Your task to perform on an android device: Search for a home improvement project you can do. Image 0: 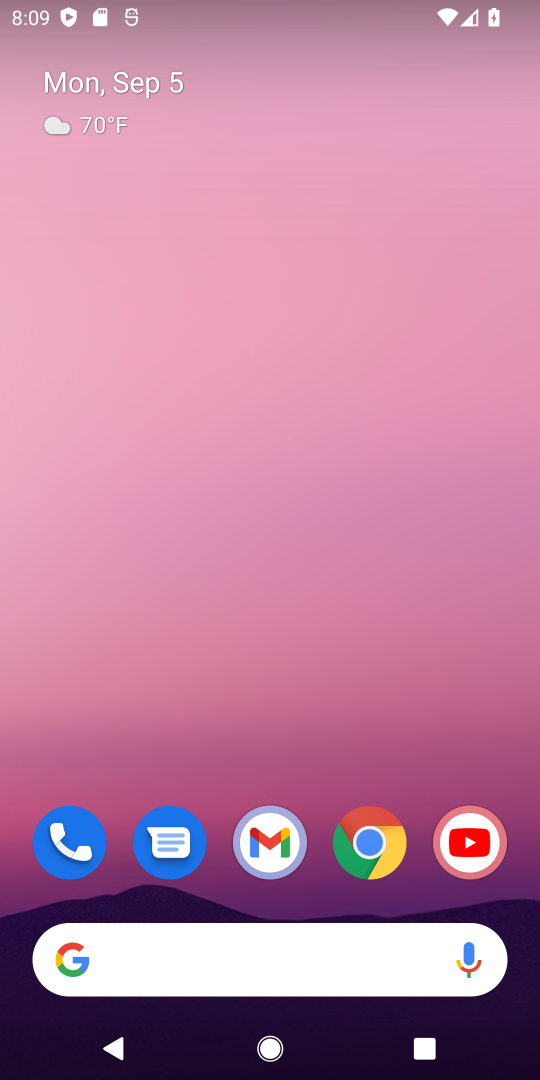
Step 0: click (369, 839)
Your task to perform on an android device: Search for a home improvement project you can do. Image 1: 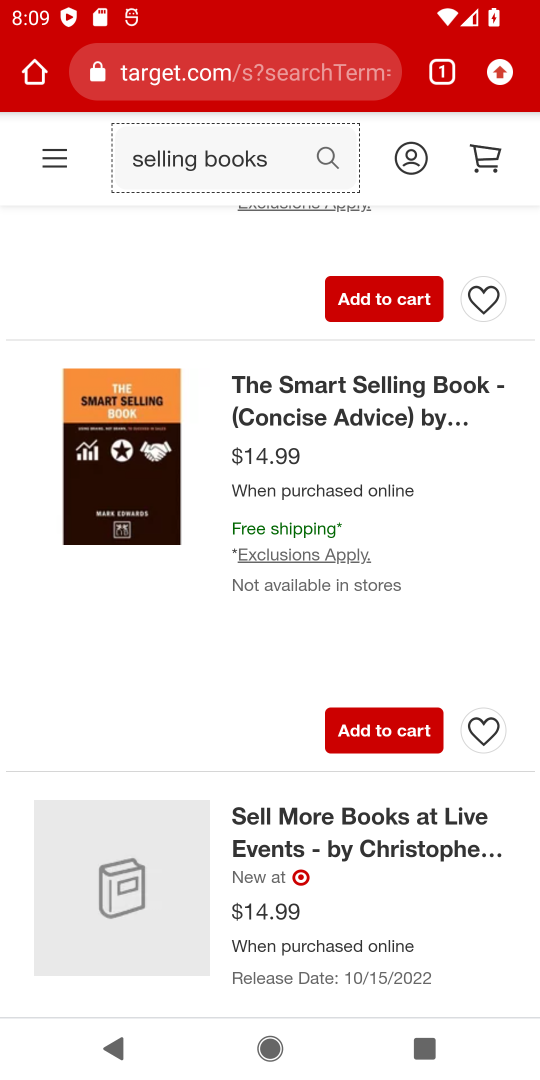
Step 1: click (362, 80)
Your task to perform on an android device: Search for a home improvement project you can do. Image 2: 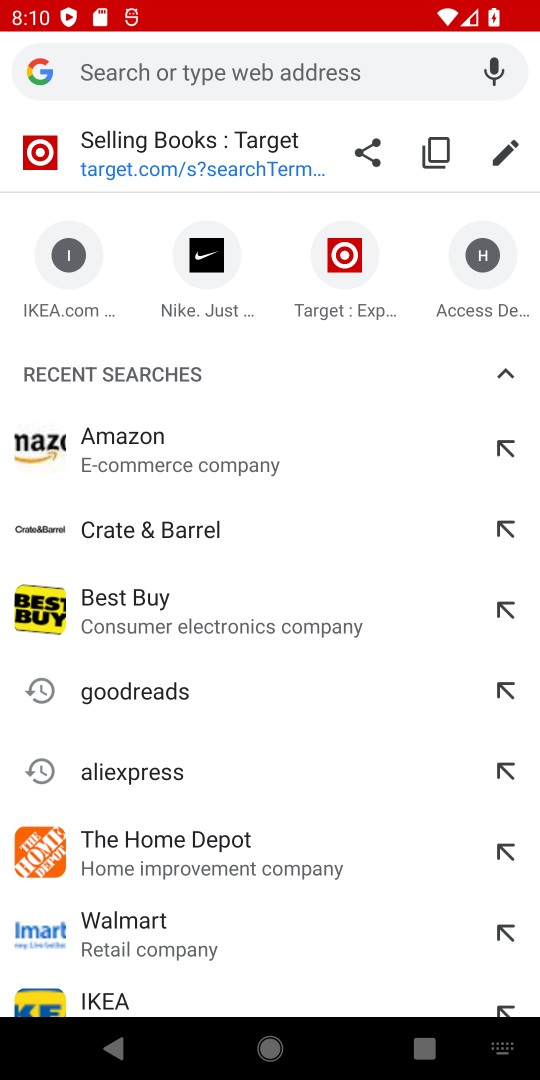
Step 2: type "home improvement project you can do"
Your task to perform on an android device: Search for a home improvement project you can do. Image 3: 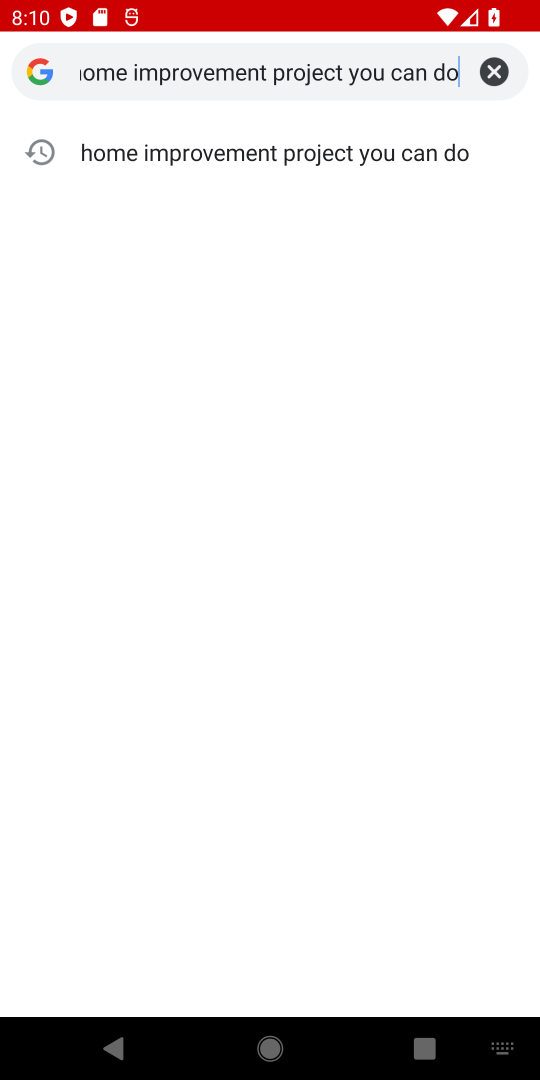
Step 3: click (401, 150)
Your task to perform on an android device: Search for a home improvement project you can do. Image 4: 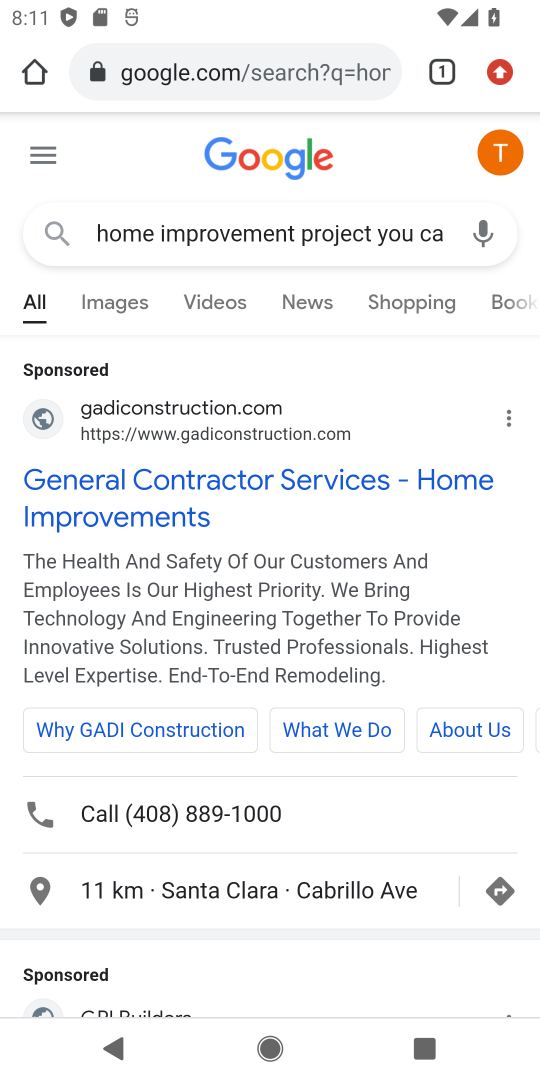
Step 4: drag from (381, 528) to (459, 350)
Your task to perform on an android device: Search for a home improvement project you can do. Image 5: 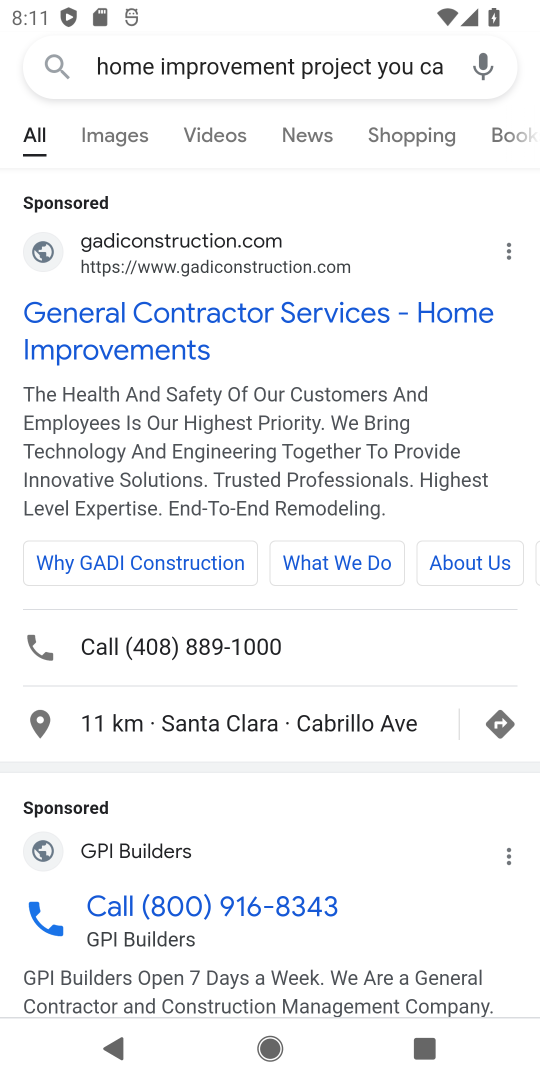
Step 5: drag from (344, 922) to (477, 557)
Your task to perform on an android device: Search for a home improvement project you can do. Image 6: 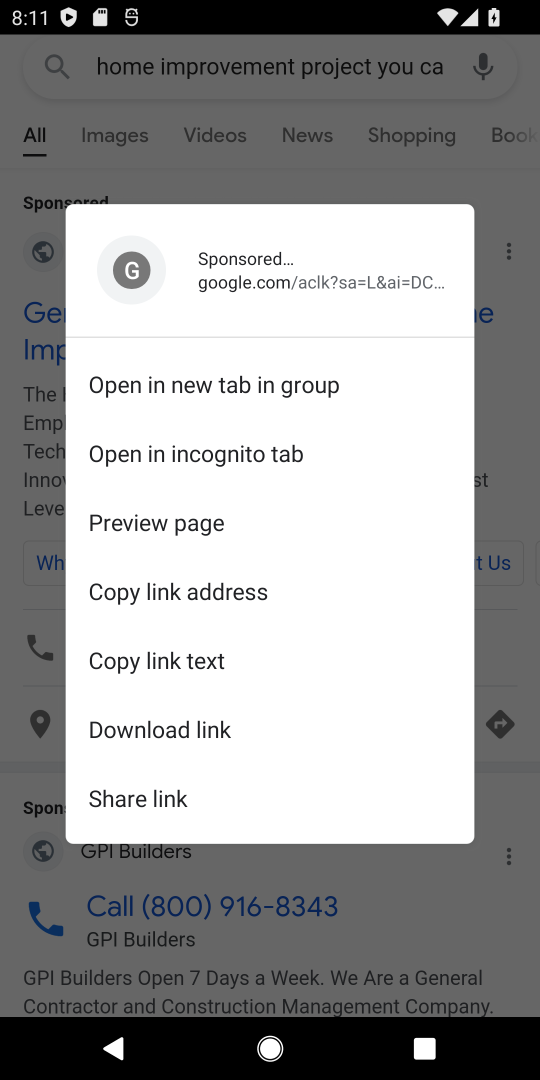
Step 6: click (528, 468)
Your task to perform on an android device: Search for a home improvement project you can do. Image 7: 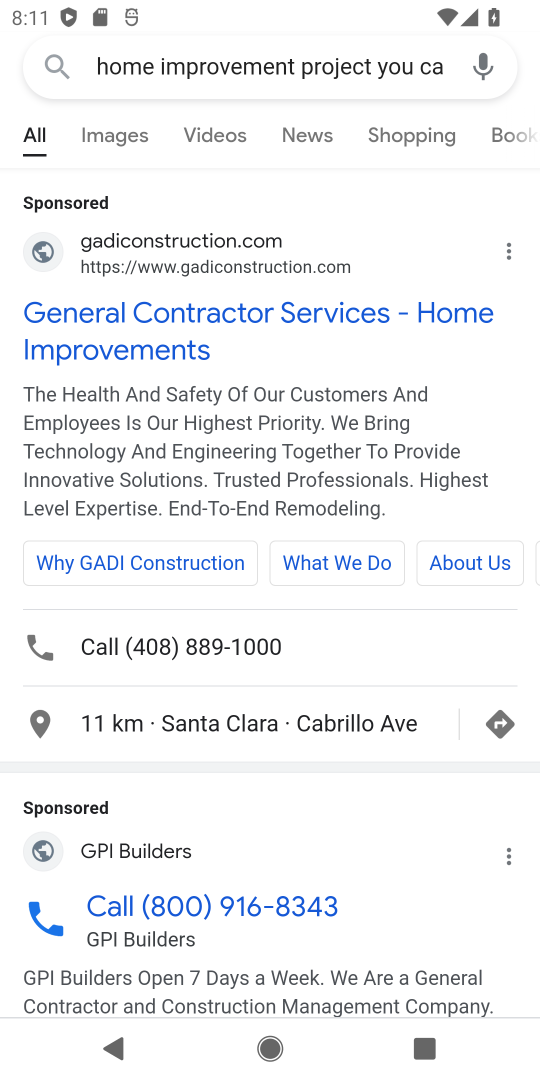
Step 7: drag from (252, 825) to (311, 499)
Your task to perform on an android device: Search for a home improvement project you can do. Image 8: 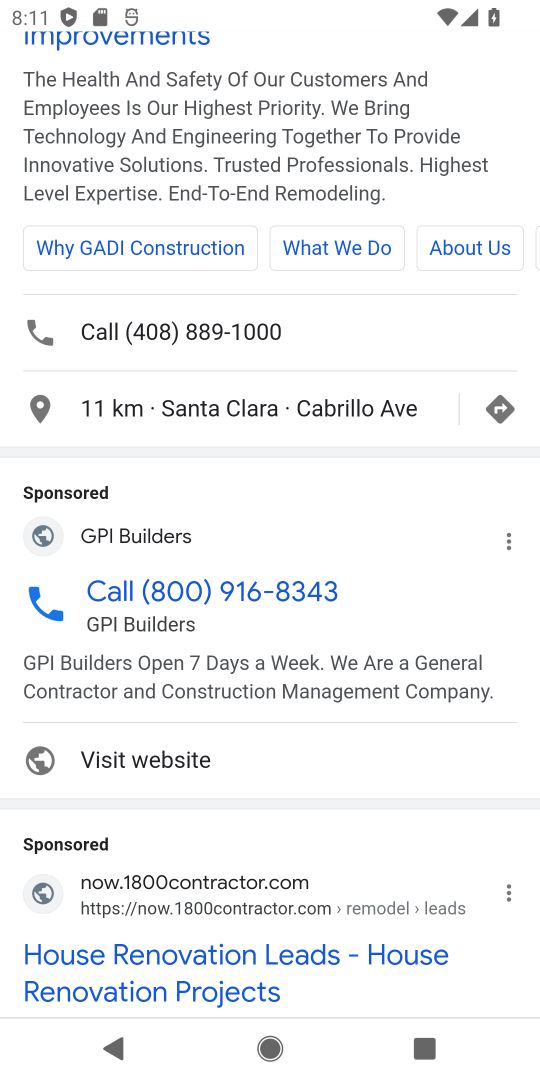
Step 8: drag from (260, 928) to (371, 655)
Your task to perform on an android device: Search for a home improvement project you can do. Image 9: 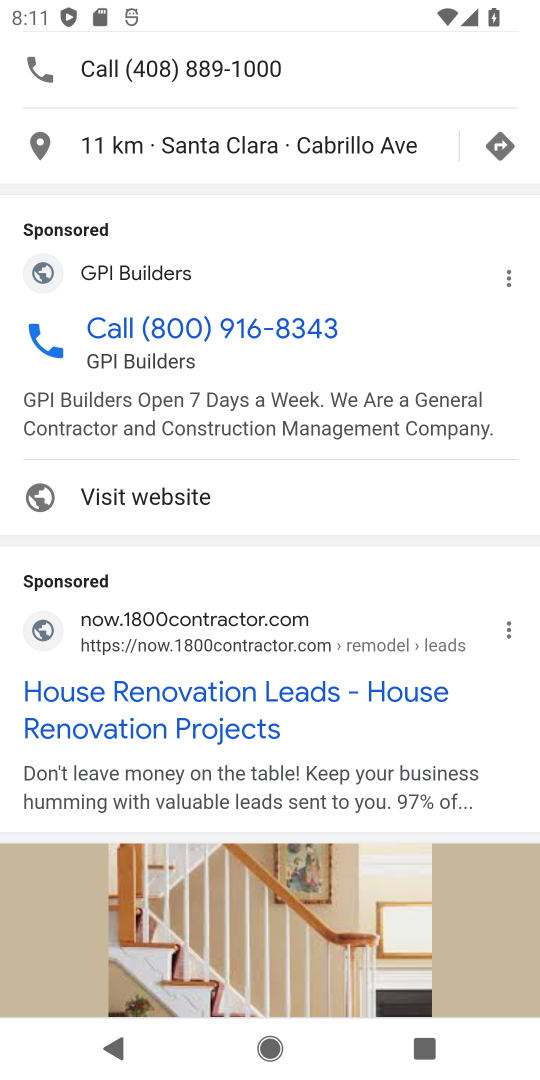
Step 9: drag from (369, 617) to (392, 381)
Your task to perform on an android device: Search for a home improvement project you can do. Image 10: 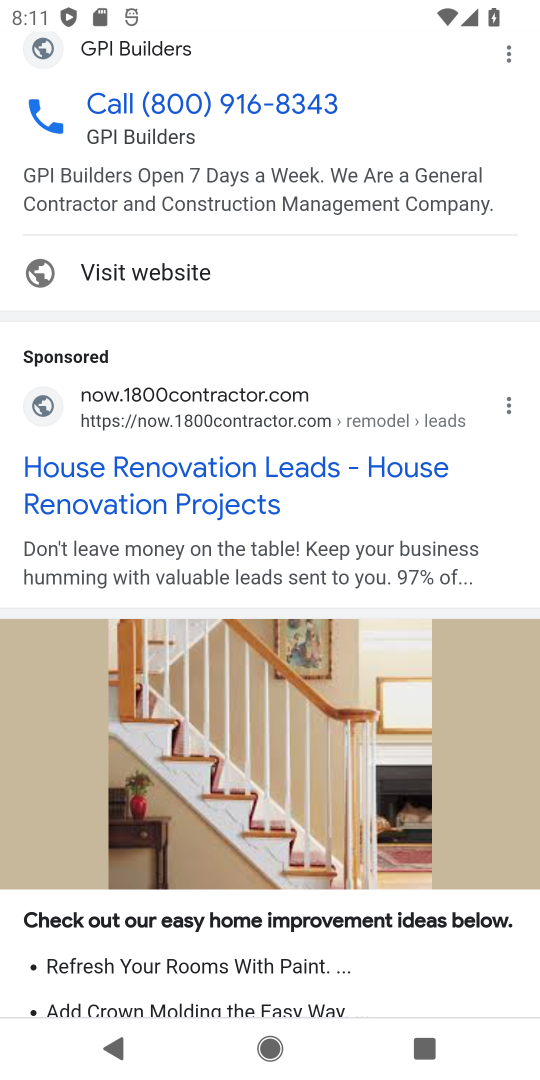
Step 10: drag from (273, 862) to (333, 646)
Your task to perform on an android device: Search for a home improvement project you can do. Image 11: 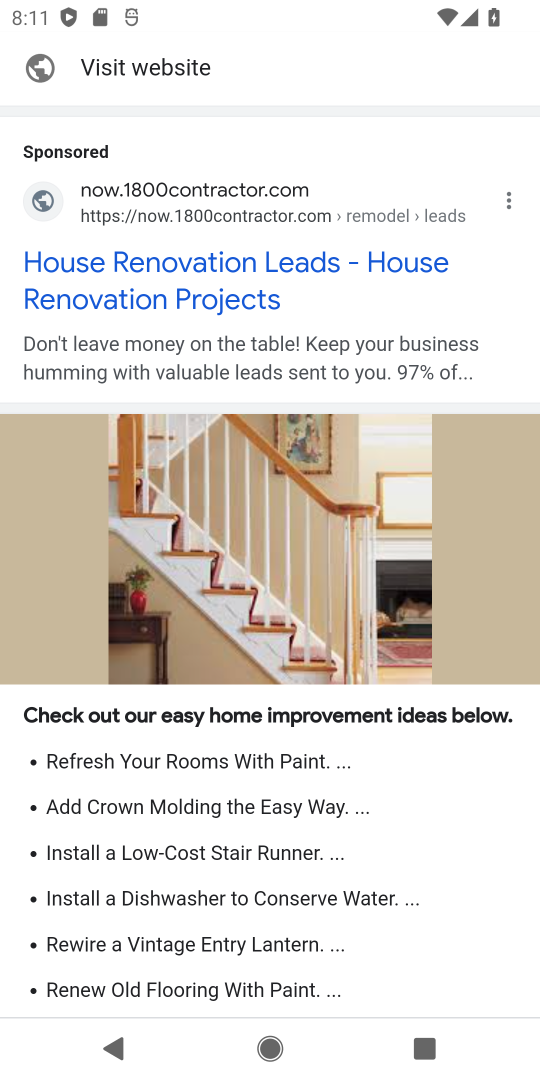
Step 11: drag from (256, 845) to (298, 669)
Your task to perform on an android device: Search for a home improvement project you can do. Image 12: 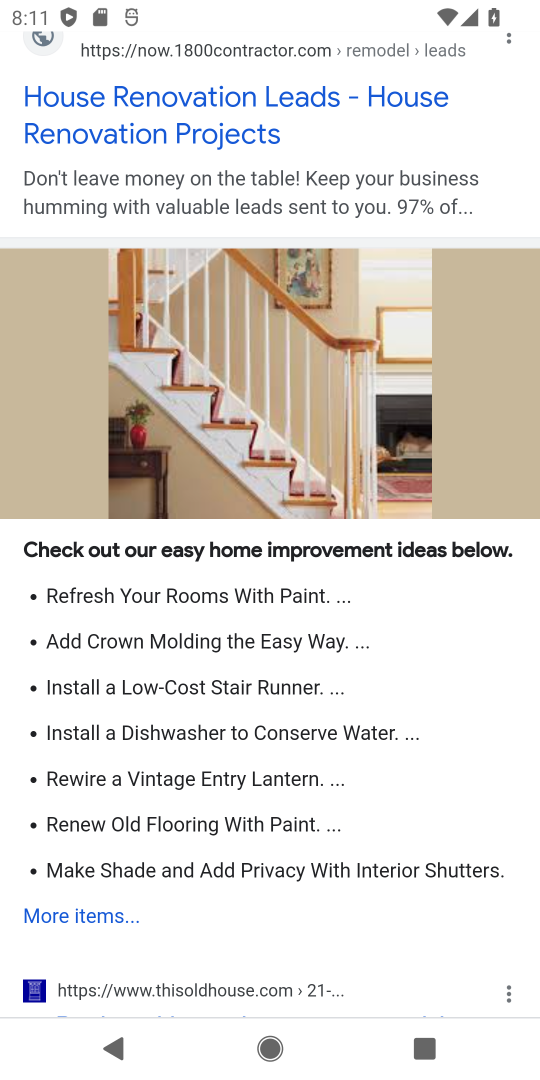
Step 12: click (91, 911)
Your task to perform on an android device: Search for a home improvement project you can do. Image 13: 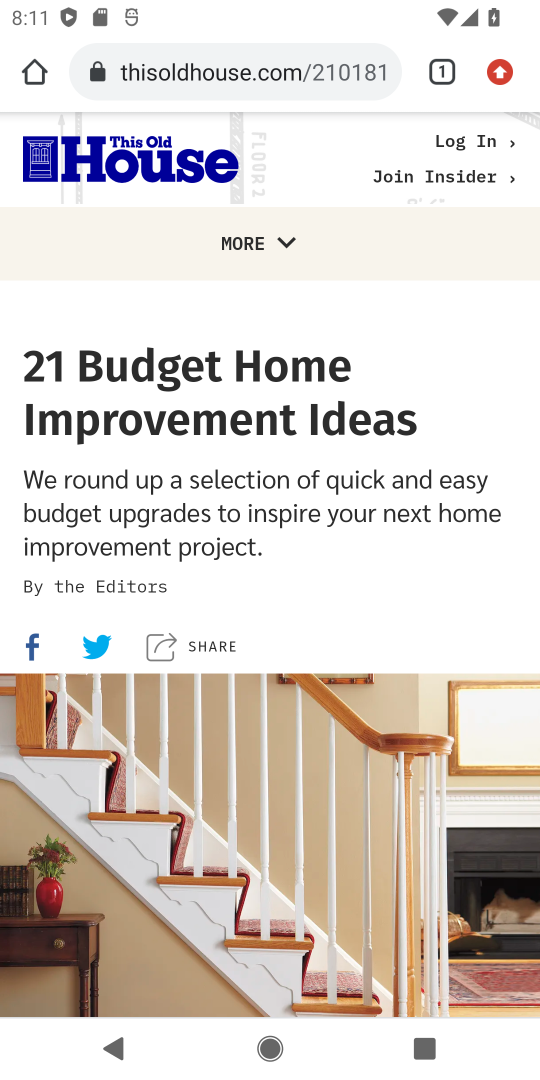
Step 13: drag from (407, 594) to (459, 491)
Your task to perform on an android device: Search for a home improvement project you can do. Image 14: 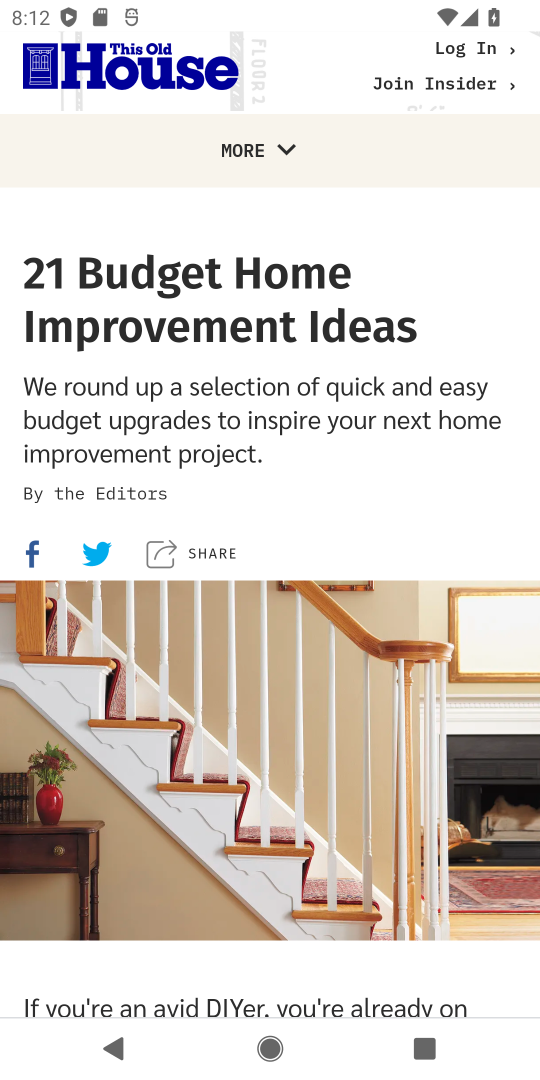
Step 14: drag from (328, 721) to (432, 496)
Your task to perform on an android device: Search for a home improvement project you can do. Image 15: 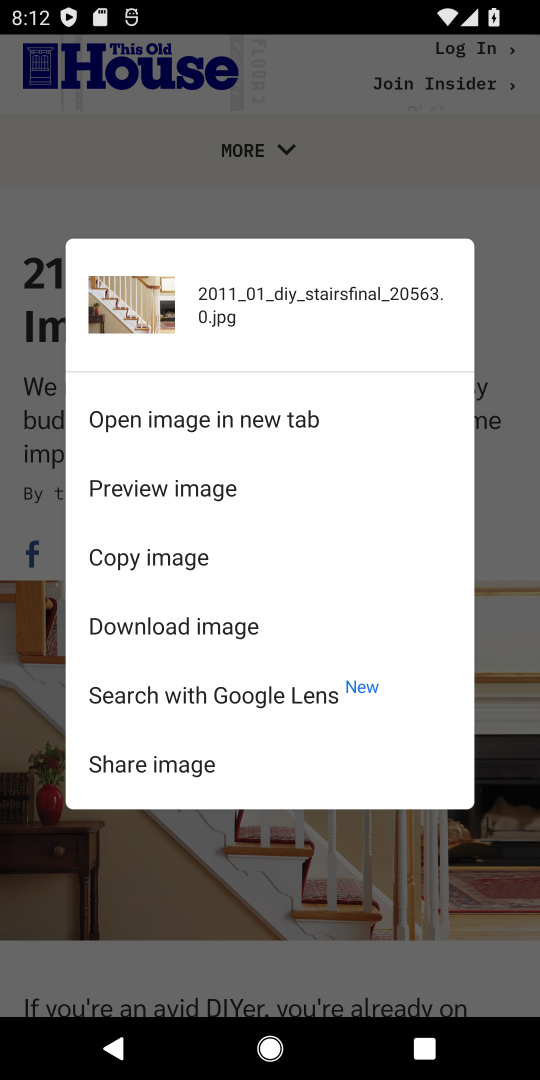
Step 15: click (480, 215)
Your task to perform on an android device: Search for a home improvement project you can do. Image 16: 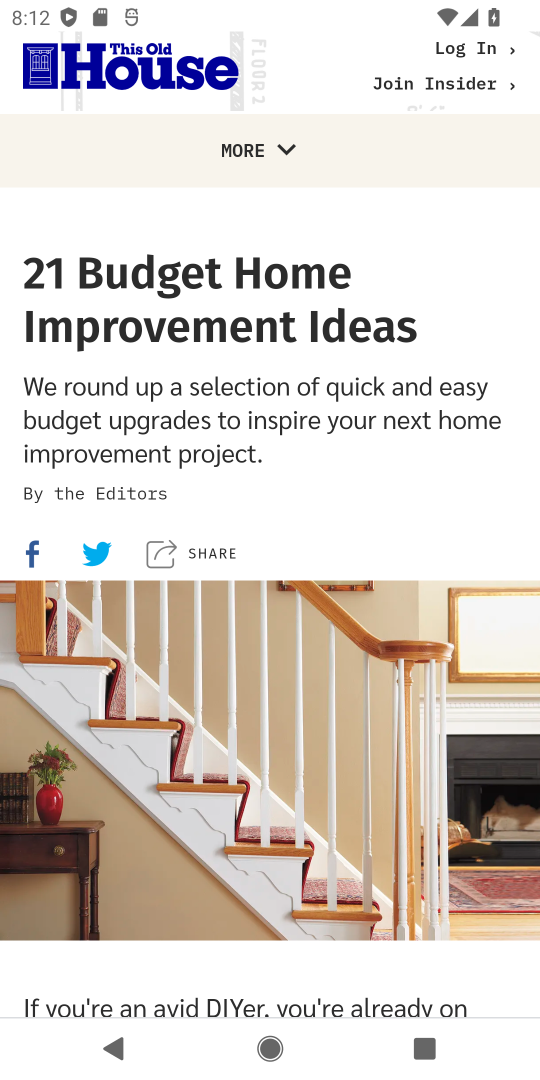
Step 16: task complete